Your task to perform on an android device: Open calendar and show me the third week of next month Image 0: 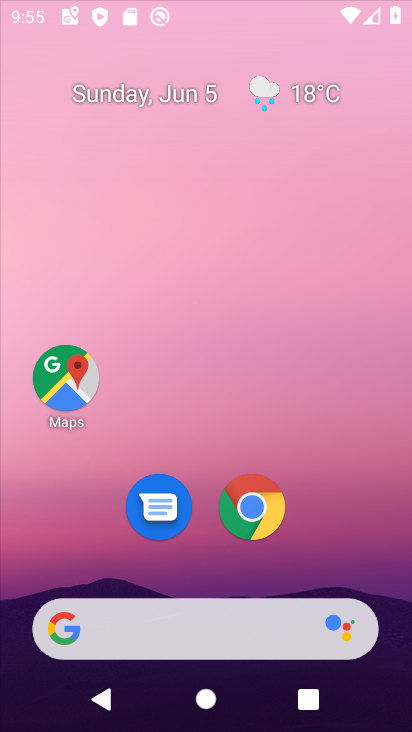
Step 0: drag from (206, 570) to (275, 55)
Your task to perform on an android device: Open calendar and show me the third week of next month Image 1: 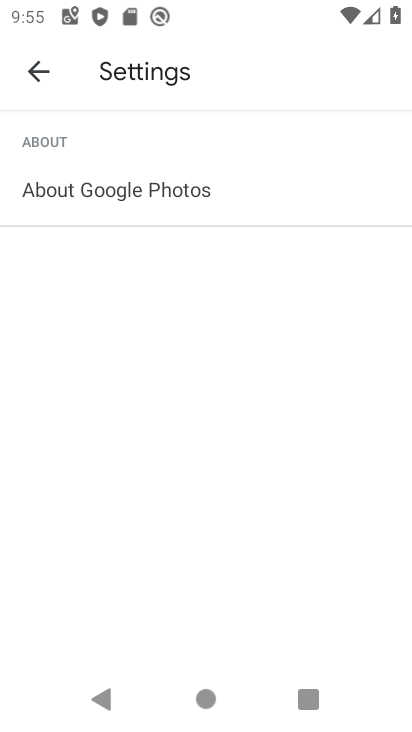
Step 1: press home button
Your task to perform on an android device: Open calendar and show me the third week of next month Image 2: 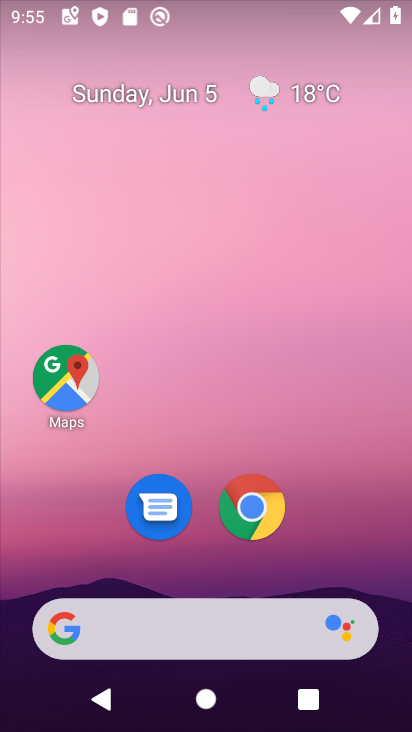
Step 2: drag from (211, 566) to (216, 362)
Your task to perform on an android device: Open calendar and show me the third week of next month Image 3: 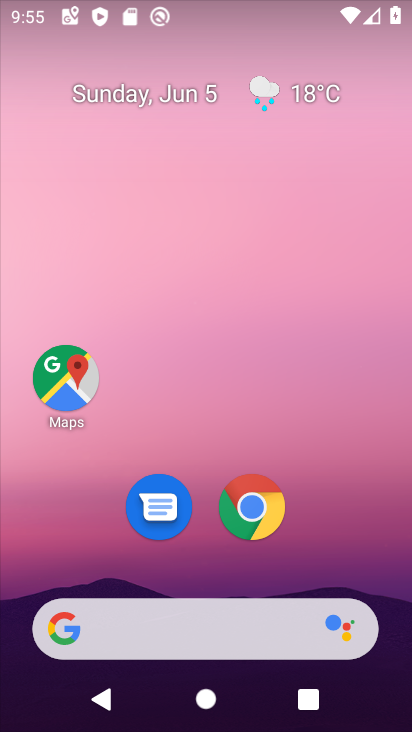
Step 3: drag from (219, 585) to (303, 8)
Your task to perform on an android device: Open calendar and show me the third week of next month Image 4: 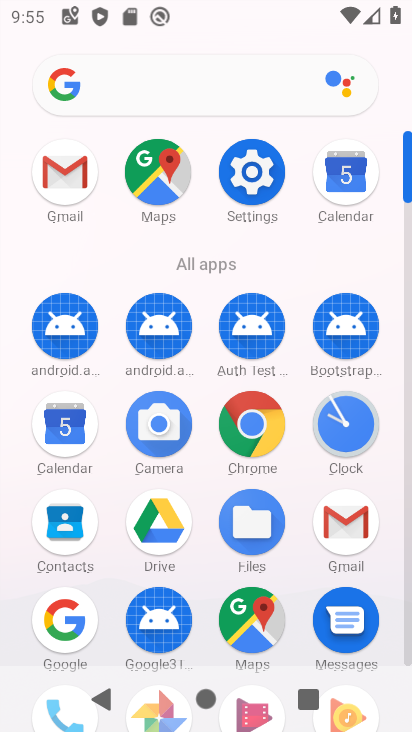
Step 4: click (60, 435)
Your task to perform on an android device: Open calendar and show me the third week of next month Image 5: 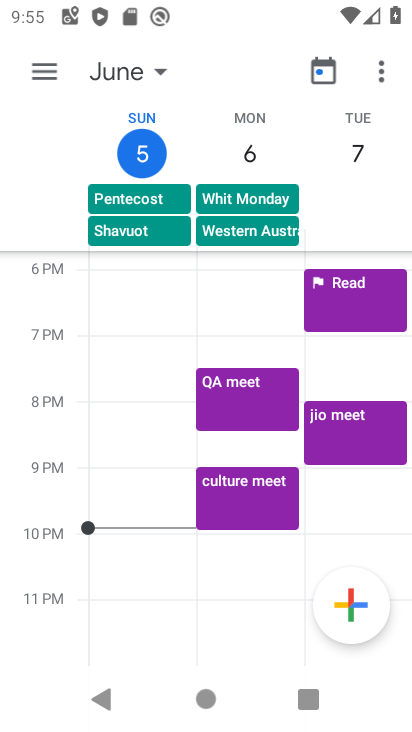
Step 5: click (44, 73)
Your task to perform on an android device: Open calendar and show me the third week of next month Image 6: 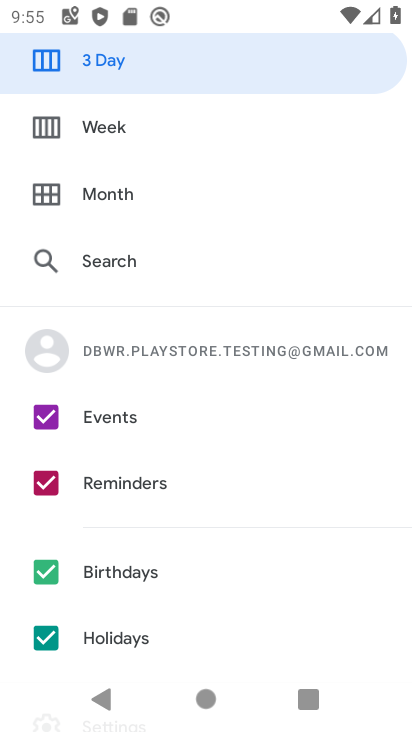
Step 6: click (125, 132)
Your task to perform on an android device: Open calendar and show me the third week of next month Image 7: 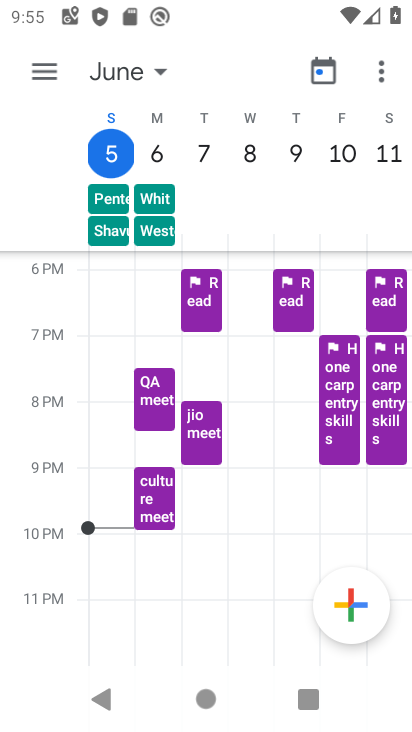
Step 7: click (148, 70)
Your task to perform on an android device: Open calendar and show me the third week of next month Image 8: 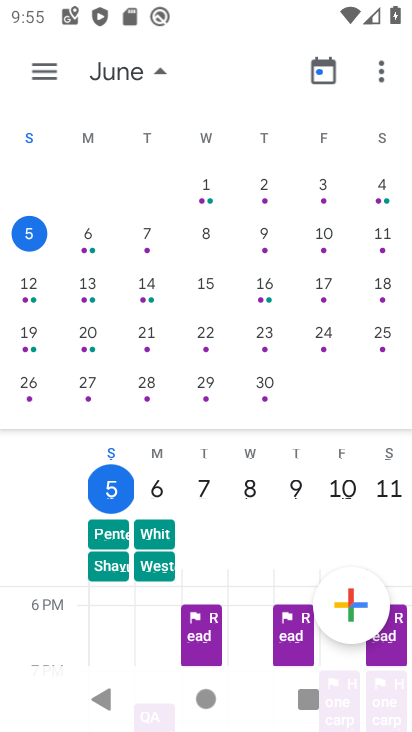
Step 8: drag from (336, 241) to (75, 191)
Your task to perform on an android device: Open calendar and show me the third week of next month Image 9: 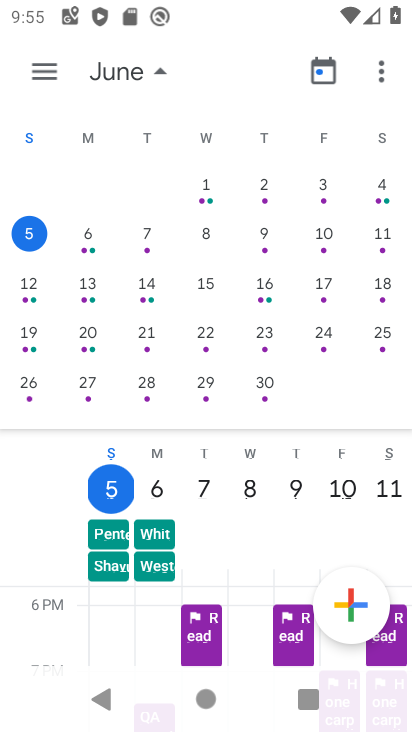
Step 9: drag from (313, 290) to (88, 282)
Your task to perform on an android device: Open calendar and show me the third week of next month Image 10: 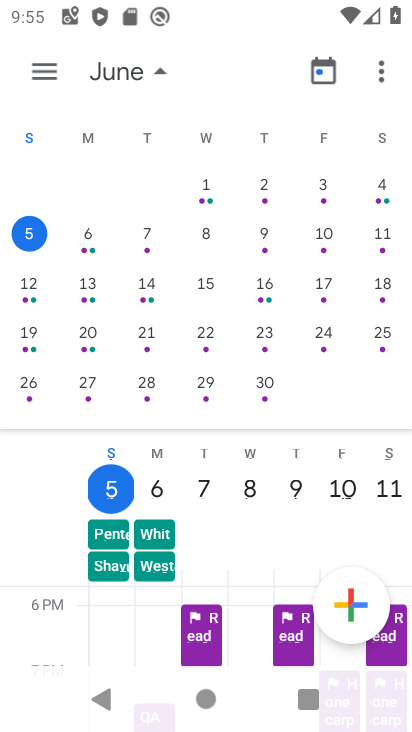
Step 10: click (197, 192)
Your task to perform on an android device: Open calendar and show me the third week of next month Image 11: 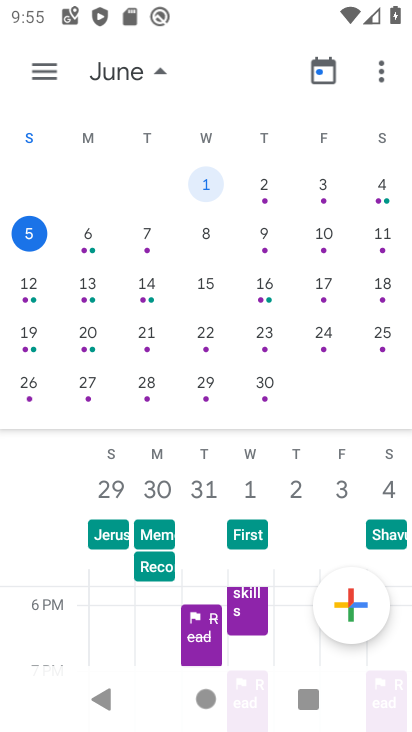
Step 11: click (205, 241)
Your task to perform on an android device: Open calendar and show me the third week of next month Image 12: 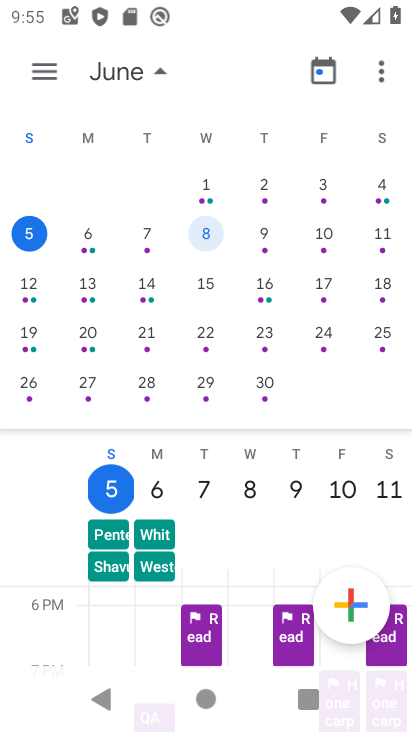
Step 12: click (43, 69)
Your task to perform on an android device: Open calendar and show me the third week of next month Image 13: 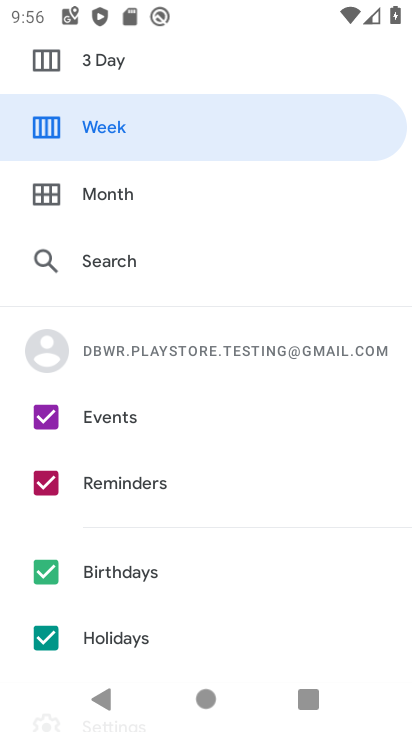
Step 13: click (130, 126)
Your task to perform on an android device: Open calendar and show me the third week of next month Image 14: 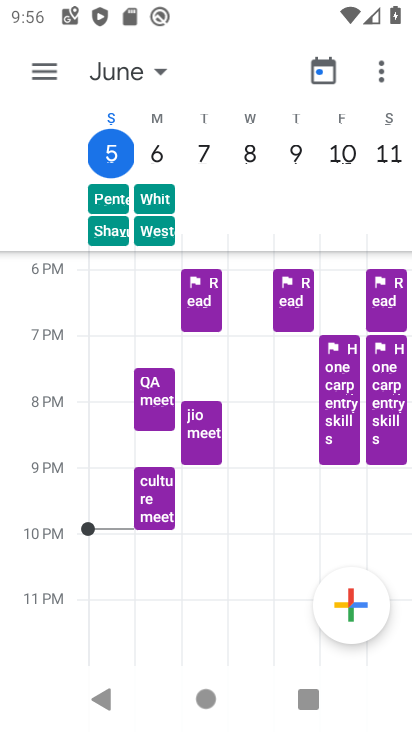
Step 14: task complete